Your task to perform on an android device: change the clock display to analog Image 0: 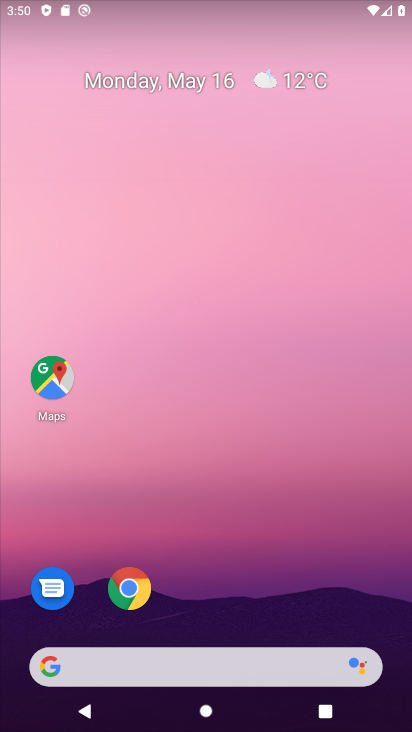
Step 0: drag from (180, 614) to (310, 93)
Your task to perform on an android device: change the clock display to analog Image 1: 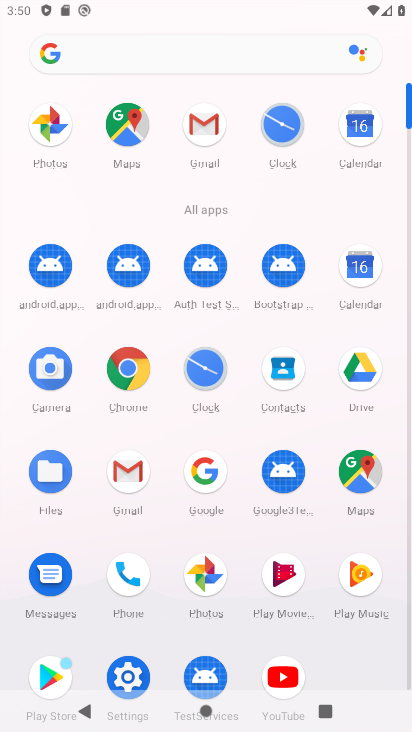
Step 1: click (208, 382)
Your task to perform on an android device: change the clock display to analog Image 2: 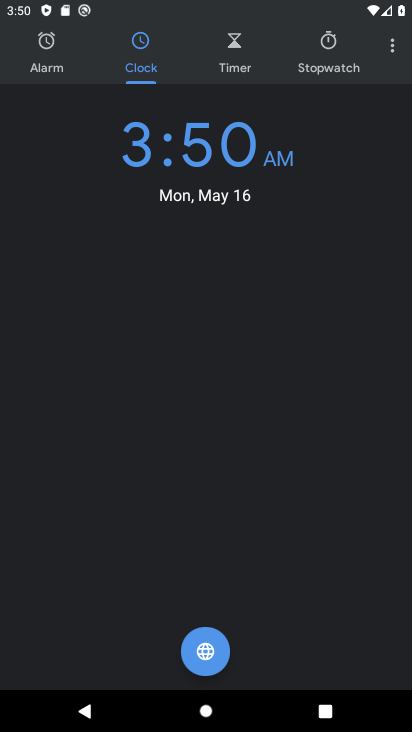
Step 2: click (397, 58)
Your task to perform on an android device: change the clock display to analog Image 3: 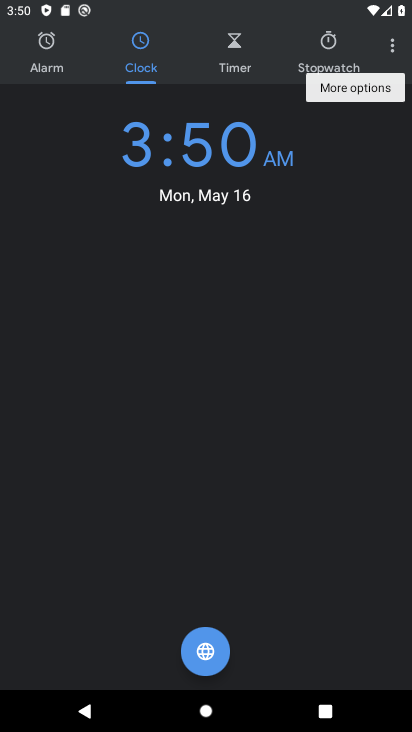
Step 3: click (389, 46)
Your task to perform on an android device: change the clock display to analog Image 4: 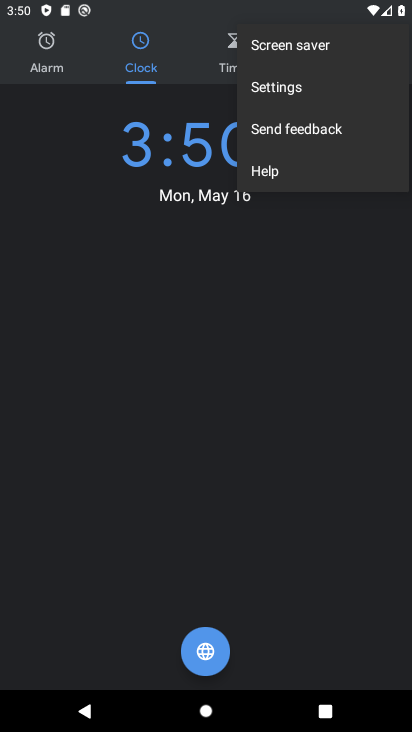
Step 4: click (319, 92)
Your task to perform on an android device: change the clock display to analog Image 5: 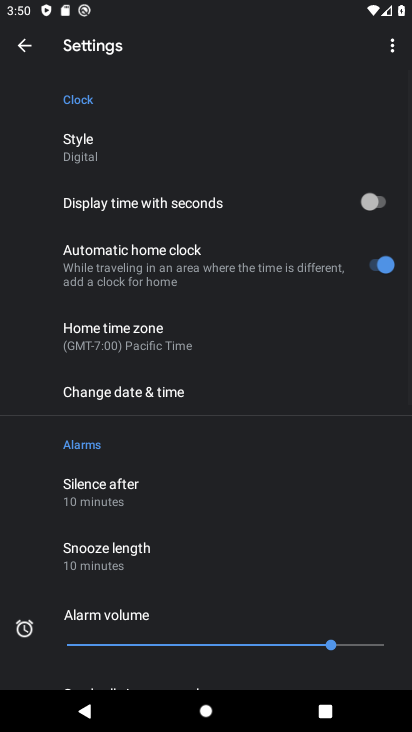
Step 5: click (235, 152)
Your task to perform on an android device: change the clock display to analog Image 6: 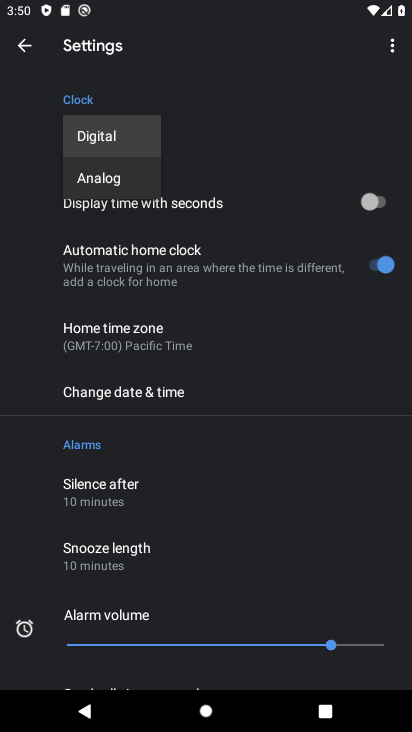
Step 6: click (95, 175)
Your task to perform on an android device: change the clock display to analog Image 7: 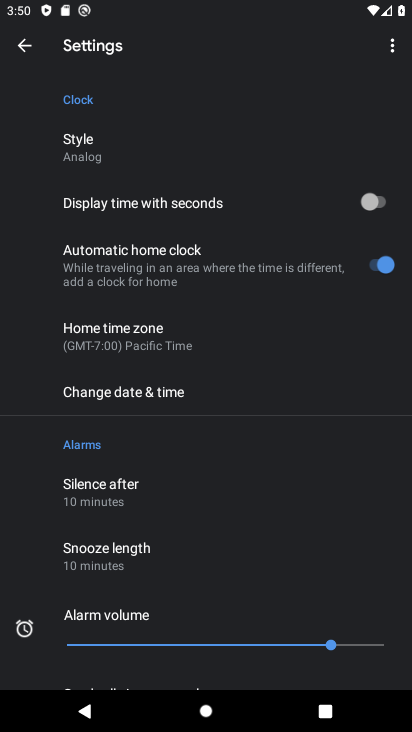
Step 7: task complete